Your task to perform on an android device: open a bookmark in the chrome app Image 0: 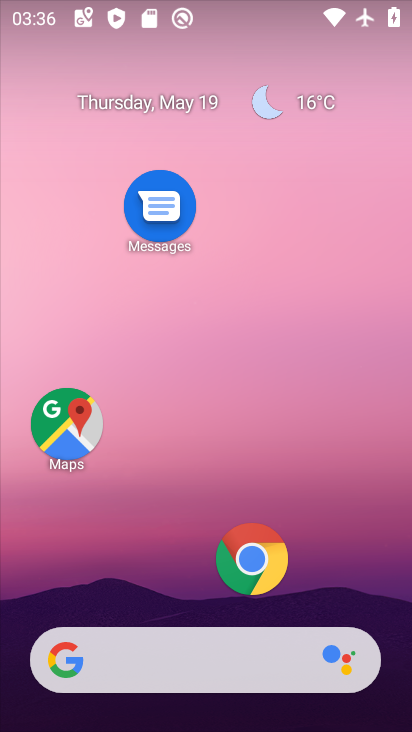
Step 0: click (258, 550)
Your task to perform on an android device: open a bookmark in the chrome app Image 1: 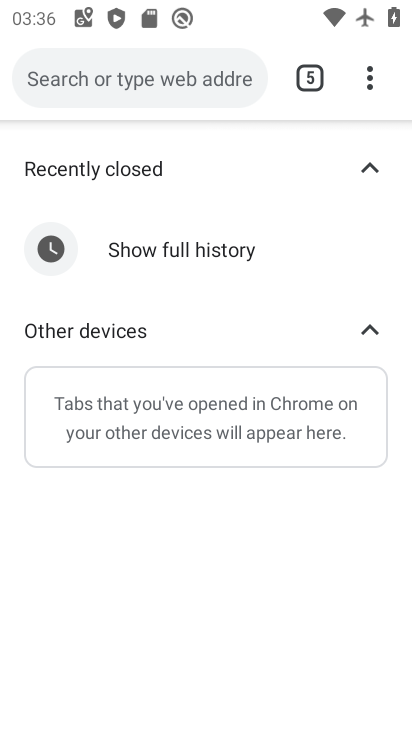
Step 1: task complete